Your task to perform on an android device: Open the calendar app, open the side menu, and click the "Day" option Image 0: 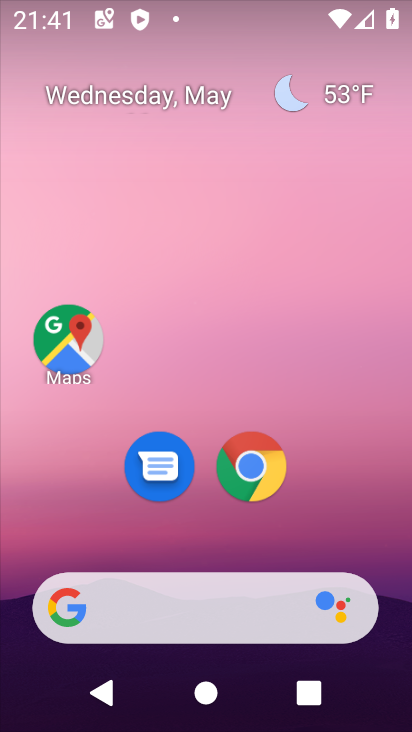
Step 0: click (13, 531)
Your task to perform on an android device: Open the calendar app, open the side menu, and click the "Day" option Image 1: 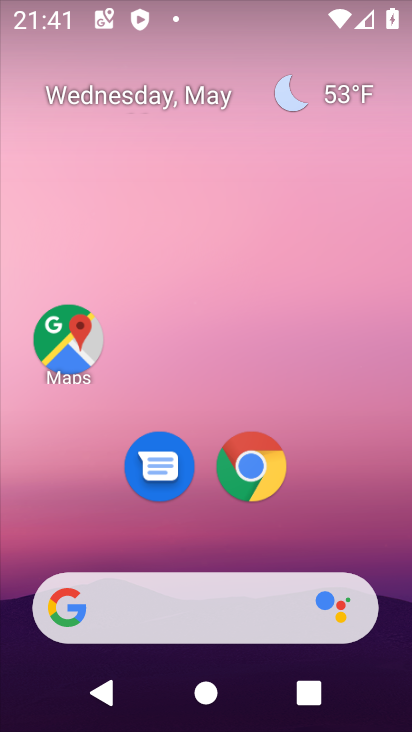
Step 1: drag from (185, 505) to (207, 103)
Your task to perform on an android device: Open the calendar app, open the side menu, and click the "Day" option Image 2: 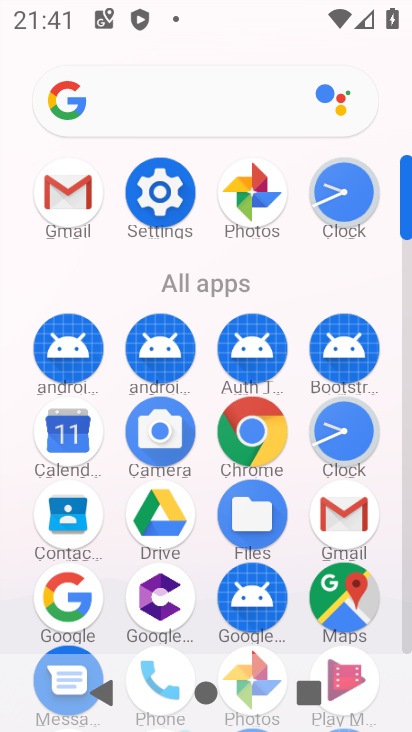
Step 2: click (68, 421)
Your task to perform on an android device: Open the calendar app, open the side menu, and click the "Day" option Image 3: 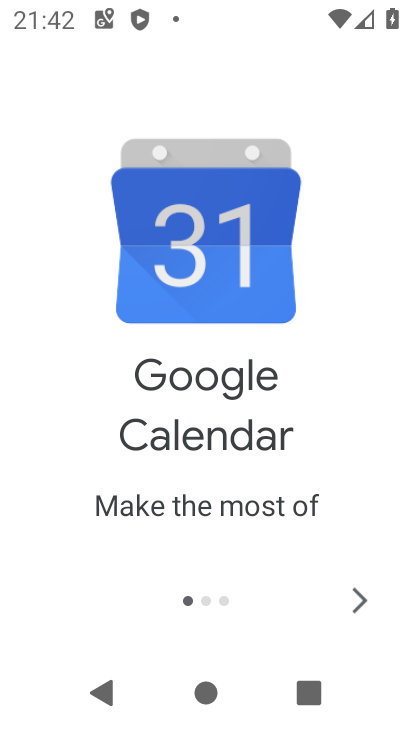
Step 3: click (357, 598)
Your task to perform on an android device: Open the calendar app, open the side menu, and click the "Day" option Image 4: 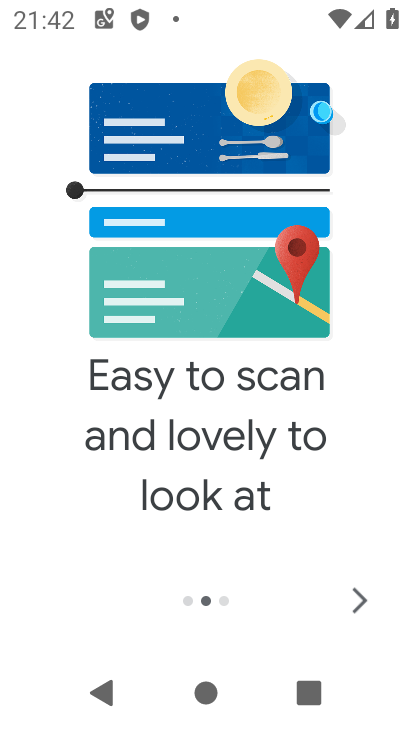
Step 4: click (357, 597)
Your task to perform on an android device: Open the calendar app, open the side menu, and click the "Day" option Image 5: 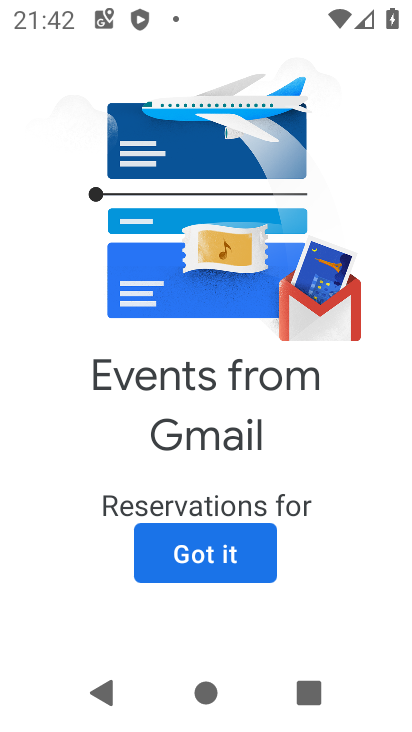
Step 5: click (103, 572)
Your task to perform on an android device: Open the calendar app, open the side menu, and click the "Day" option Image 6: 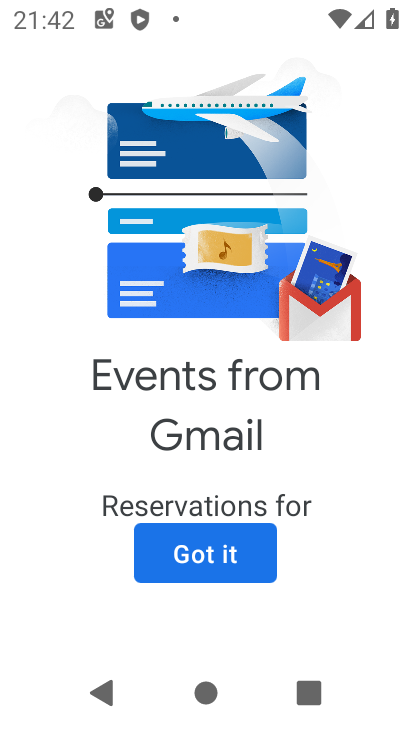
Step 6: click (141, 569)
Your task to perform on an android device: Open the calendar app, open the side menu, and click the "Day" option Image 7: 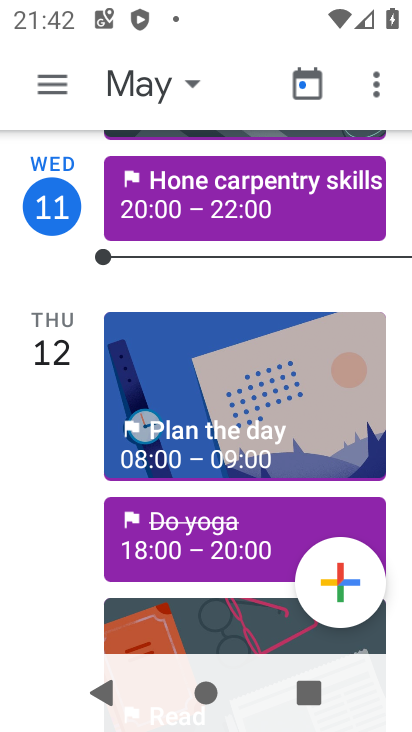
Step 7: click (62, 85)
Your task to perform on an android device: Open the calendar app, open the side menu, and click the "Day" option Image 8: 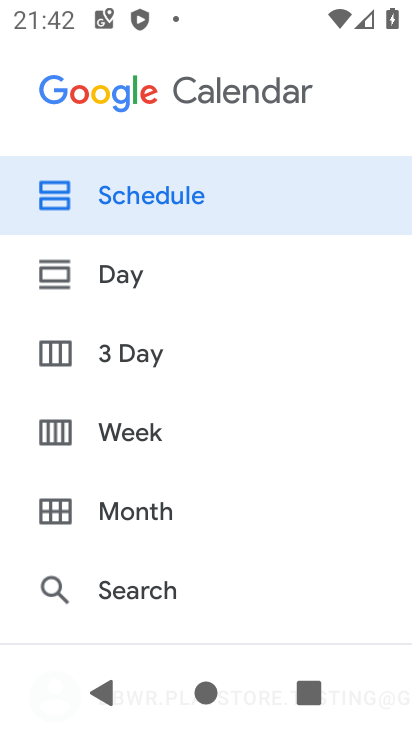
Step 8: click (144, 290)
Your task to perform on an android device: Open the calendar app, open the side menu, and click the "Day" option Image 9: 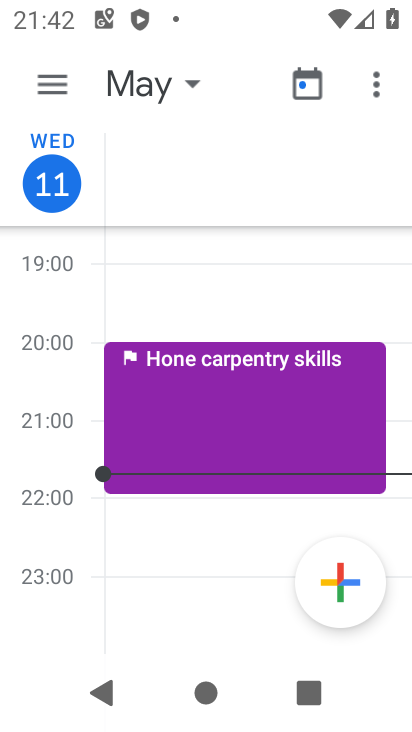
Step 9: task complete